Your task to perform on an android device: delete a single message in the gmail app Image 0: 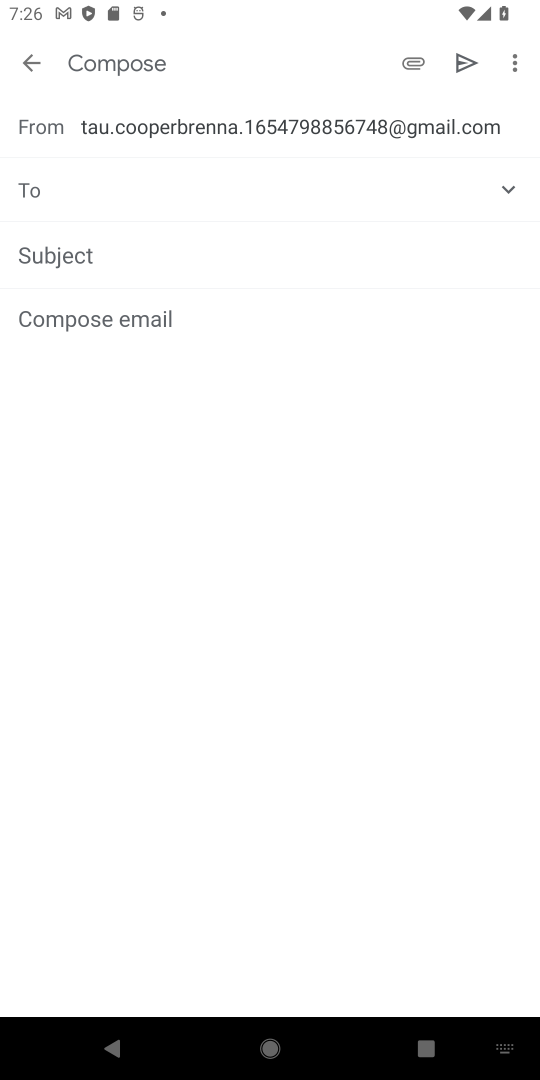
Step 0: press home button
Your task to perform on an android device: delete a single message in the gmail app Image 1: 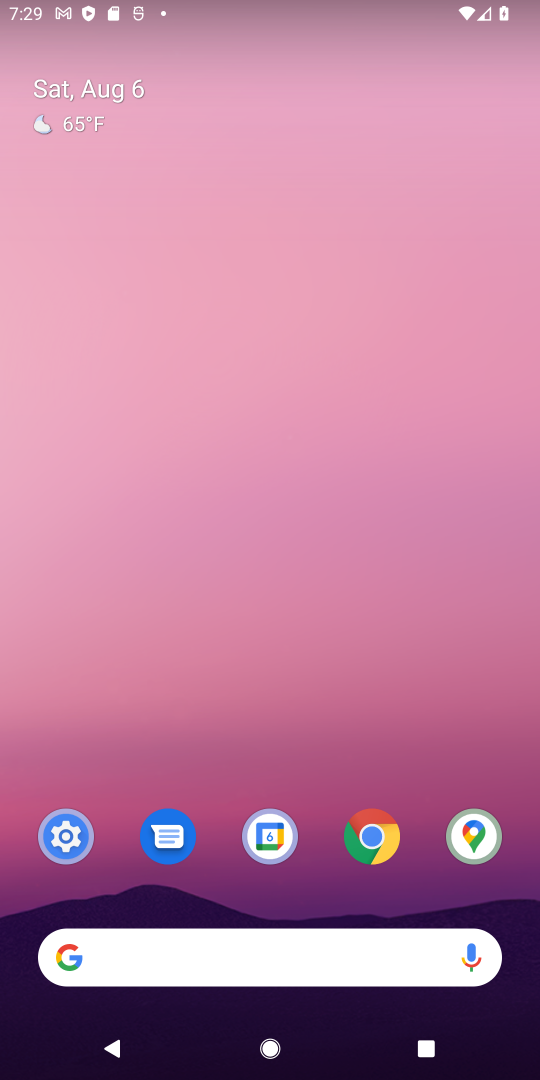
Step 1: drag from (497, 939) to (227, 11)
Your task to perform on an android device: delete a single message in the gmail app Image 2: 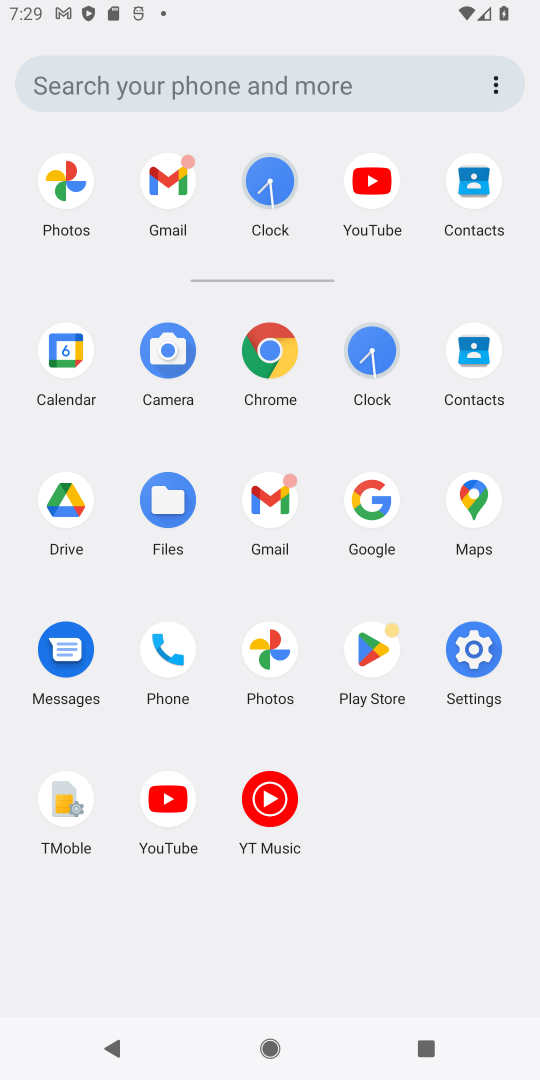
Step 2: click (277, 503)
Your task to perform on an android device: delete a single message in the gmail app Image 3: 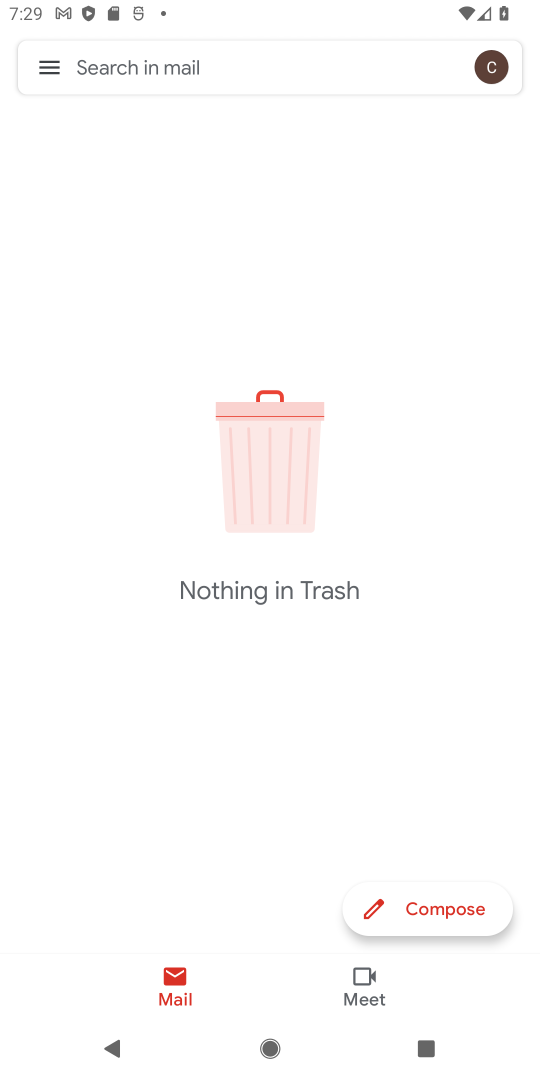
Step 3: click (16, 66)
Your task to perform on an android device: delete a single message in the gmail app Image 4: 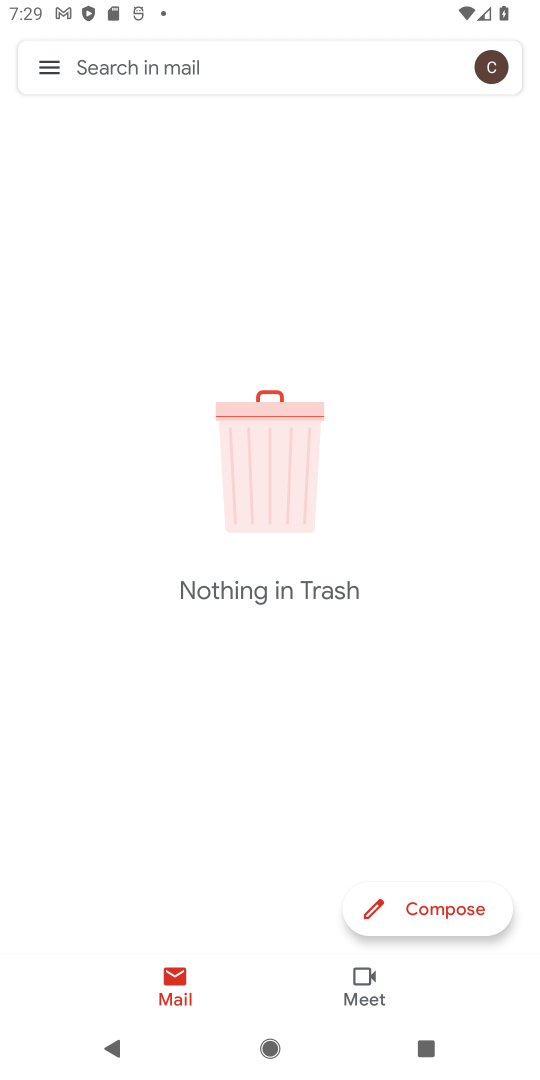
Step 4: click (37, 64)
Your task to perform on an android device: delete a single message in the gmail app Image 5: 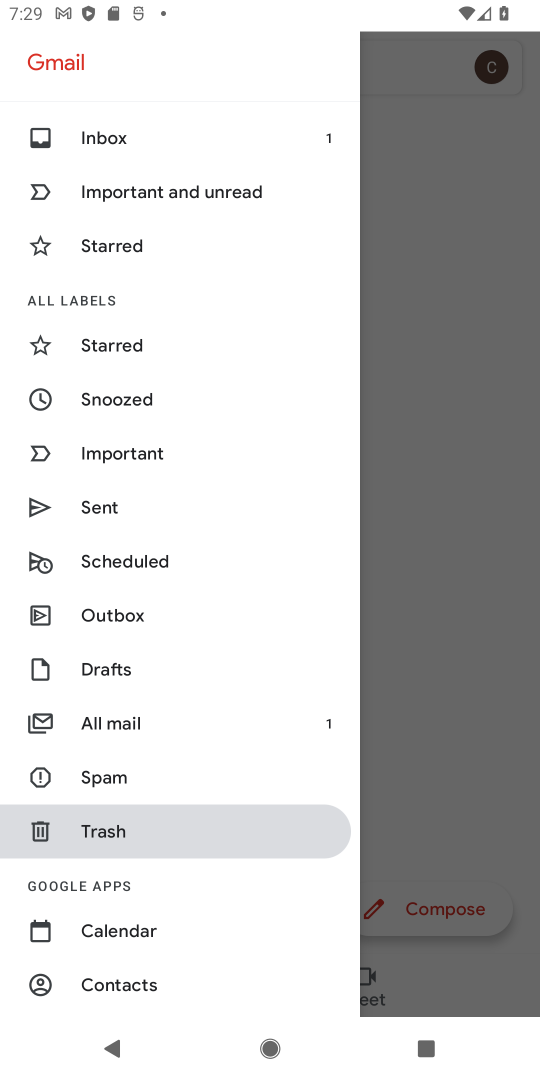
Step 5: click (138, 142)
Your task to perform on an android device: delete a single message in the gmail app Image 6: 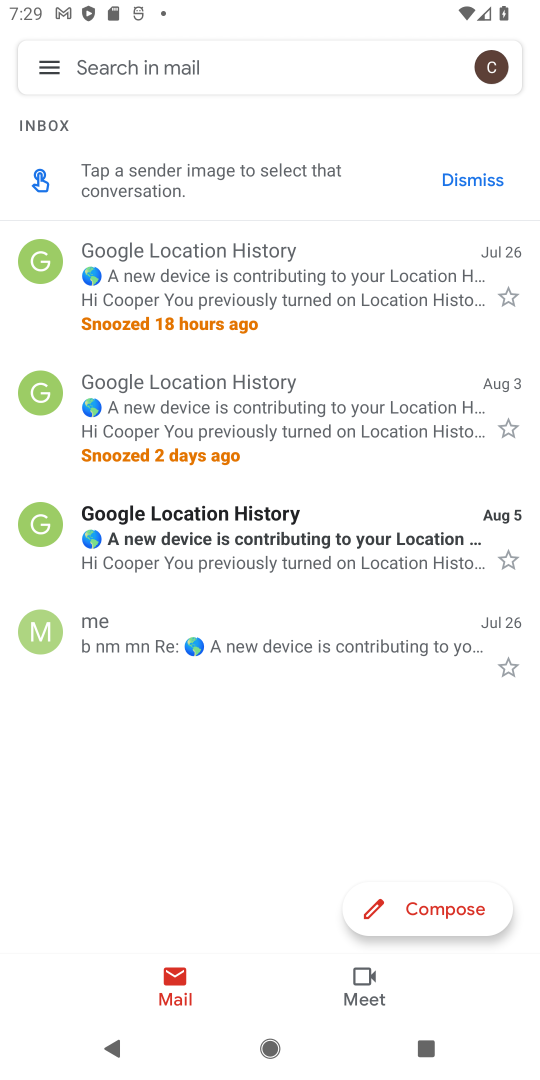
Step 6: click (297, 289)
Your task to perform on an android device: delete a single message in the gmail app Image 7: 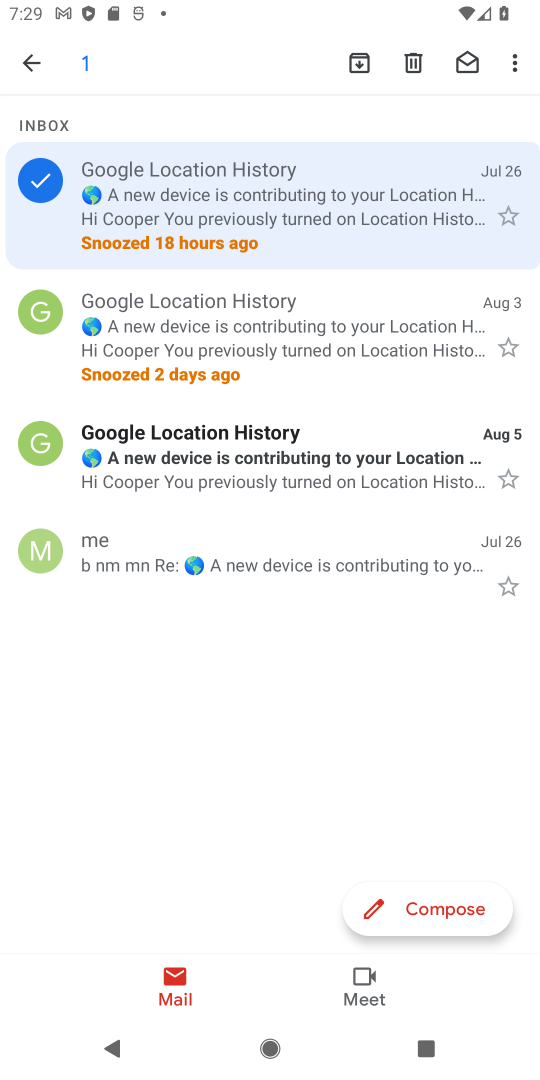
Step 7: click (414, 61)
Your task to perform on an android device: delete a single message in the gmail app Image 8: 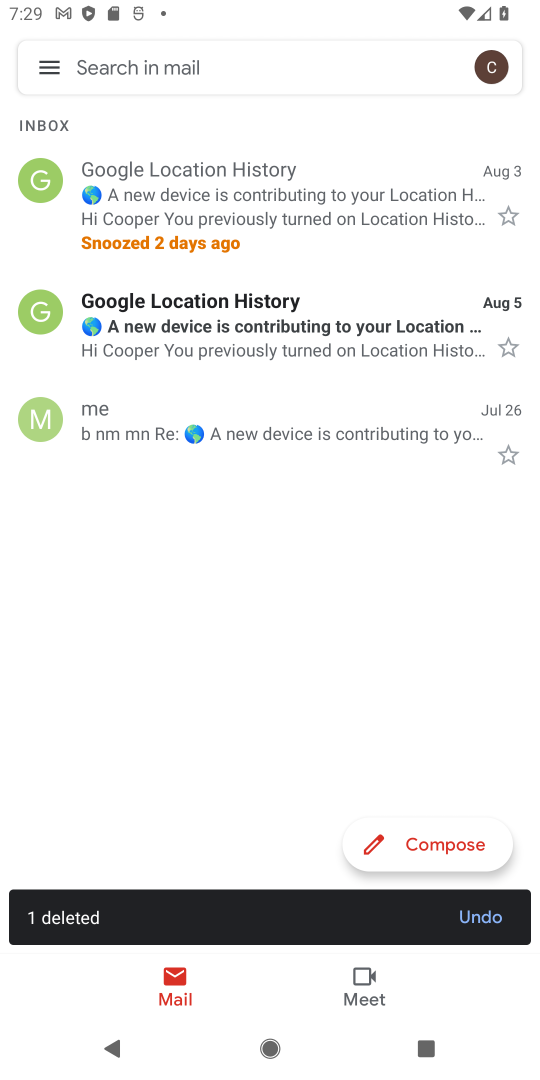
Step 8: task complete